Your task to perform on an android device: What is the recent news? Image 0: 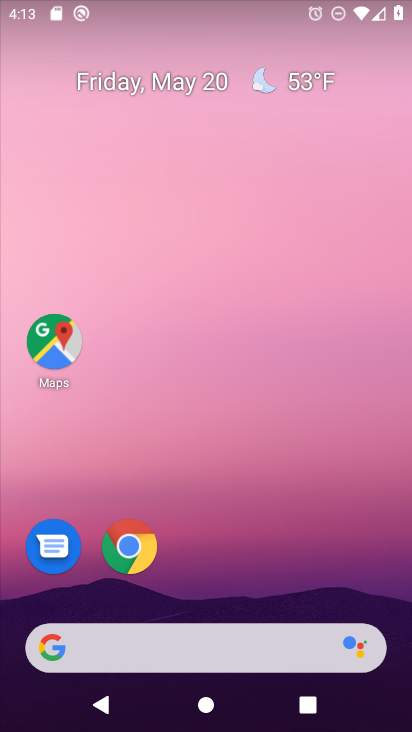
Step 0: click (135, 545)
Your task to perform on an android device: What is the recent news? Image 1: 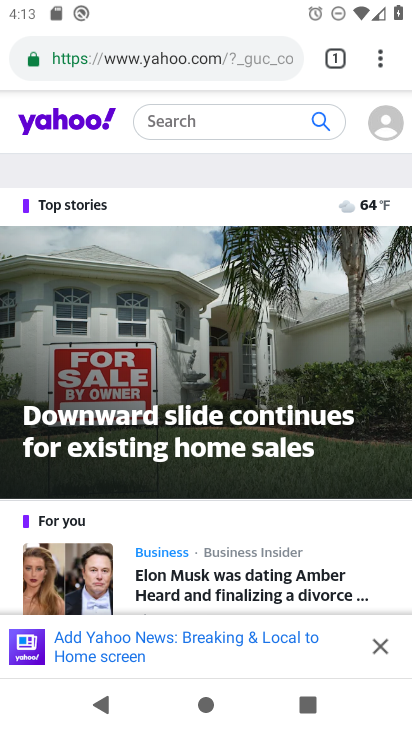
Step 1: click (251, 59)
Your task to perform on an android device: What is the recent news? Image 2: 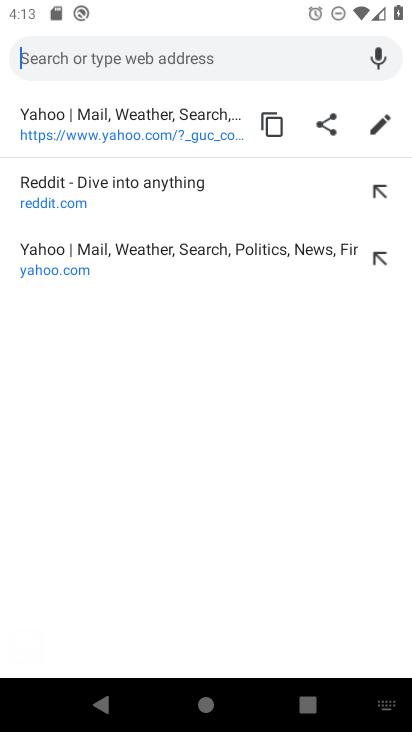
Step 2: type "news"
Your task to perform on an android device: What is the recent news? Image 3: 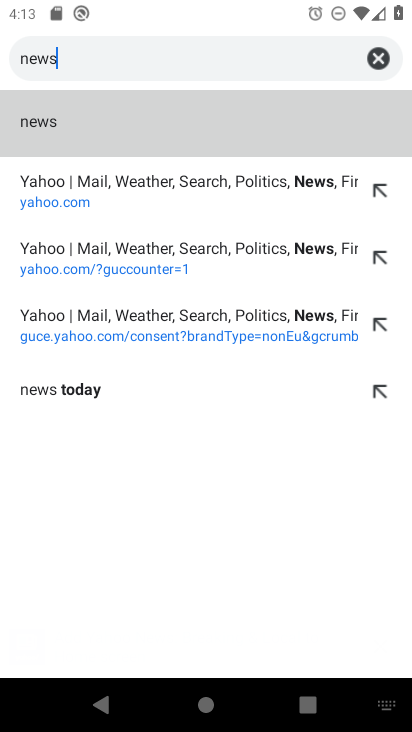
Step 3: click (45, 124)
Your task to perform on an android device: What is the recent news? Image 4: 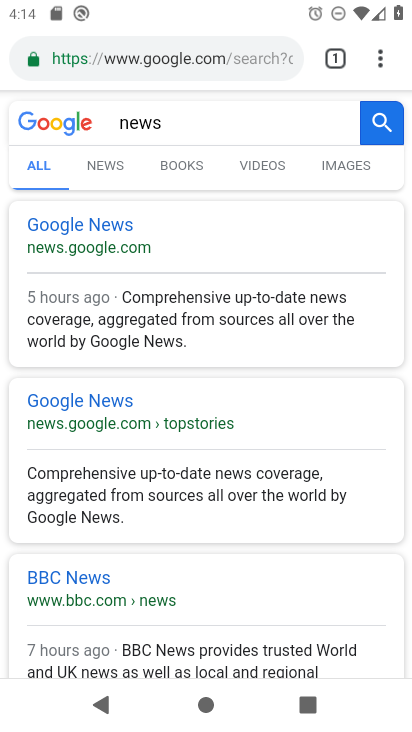
Step 4: click (98, 160)
Your task to perform on an android device: What is the recent news? Image 5: 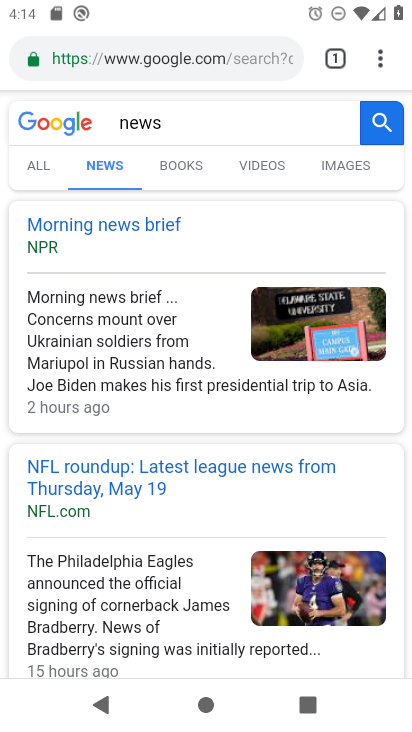
Step 5: task complete